Your task to perform on an android device: Search for Italian restaurants on Maps Image 0: 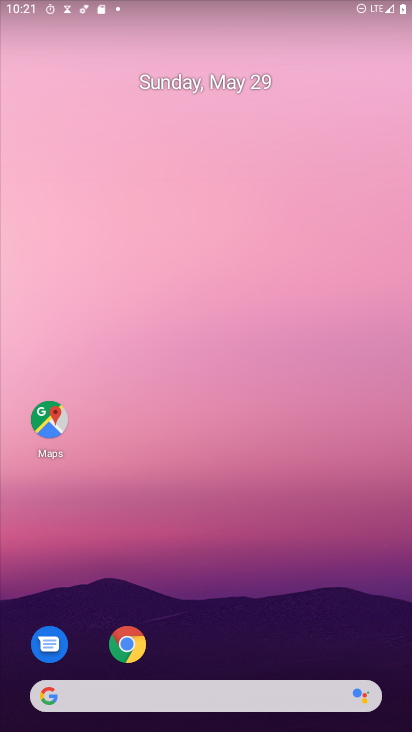
Step 0: click (50, 424)
Your task to perform on an android device: Search for Italian restaurants on Maps Image 1: 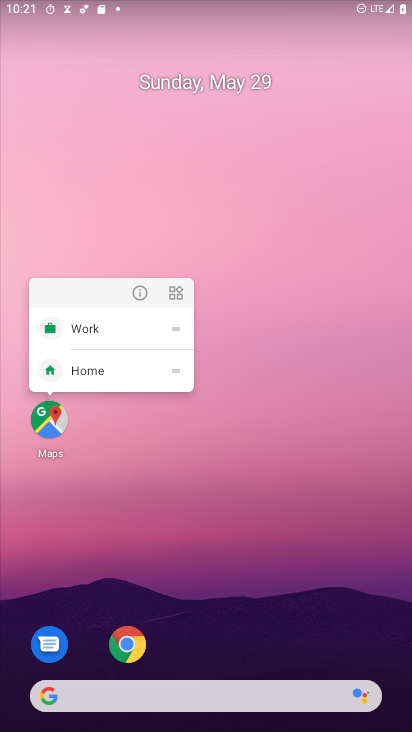
Step 1: click (54, 439)
Your task to perform on an android device: Search for Italian restaurants on Maps Image 2: 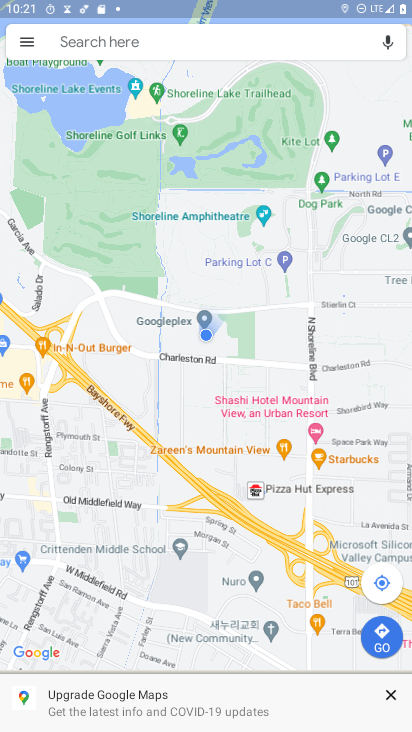
Step 2: click (189, 50)
Your task to perform on an android device: Search for Italian restaurants on Maps Image 3: 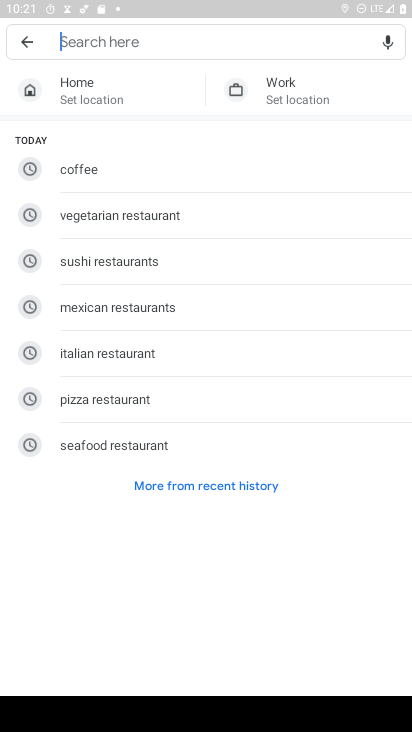
Step 3: click (123, 354)
Your task to perform on an android device: Search for Italian restaurants on Maps Image 4: 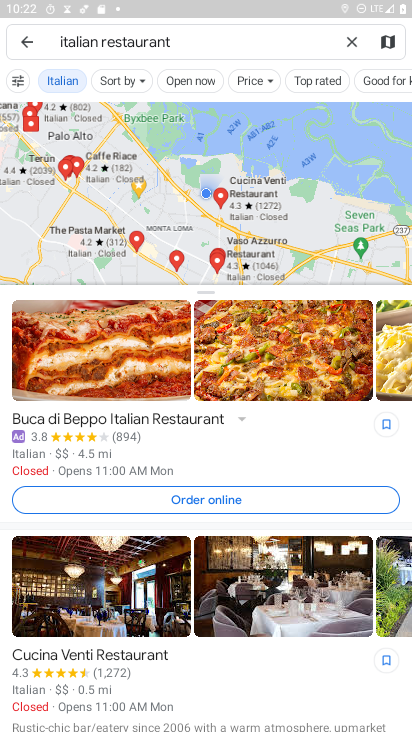
Step 4: task complete